Your task to perform on an android device: Open the map Image 0: 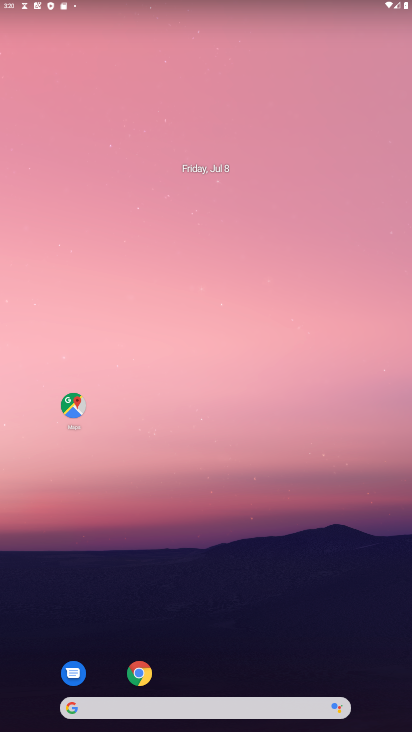
Step 0: click (69, 410)
Your task to perform on an android device: Open the map Image 1: 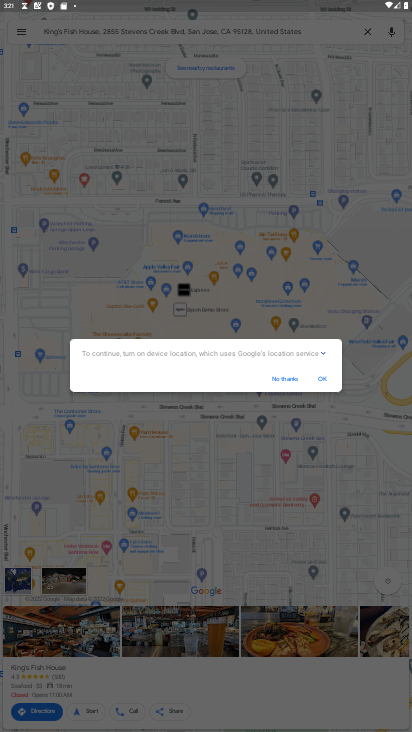
Step 1: click (319, 380)
Your task to perform on an android device: Open the map Image 2: 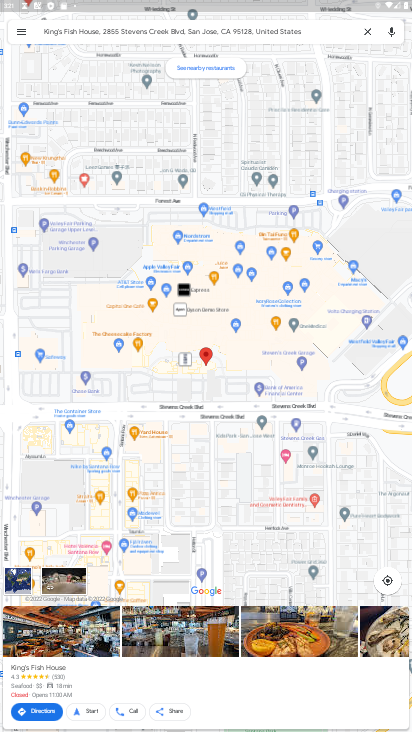
Step 2: task complete